Your task to perform on an android device: set the stopwatch Image 0: 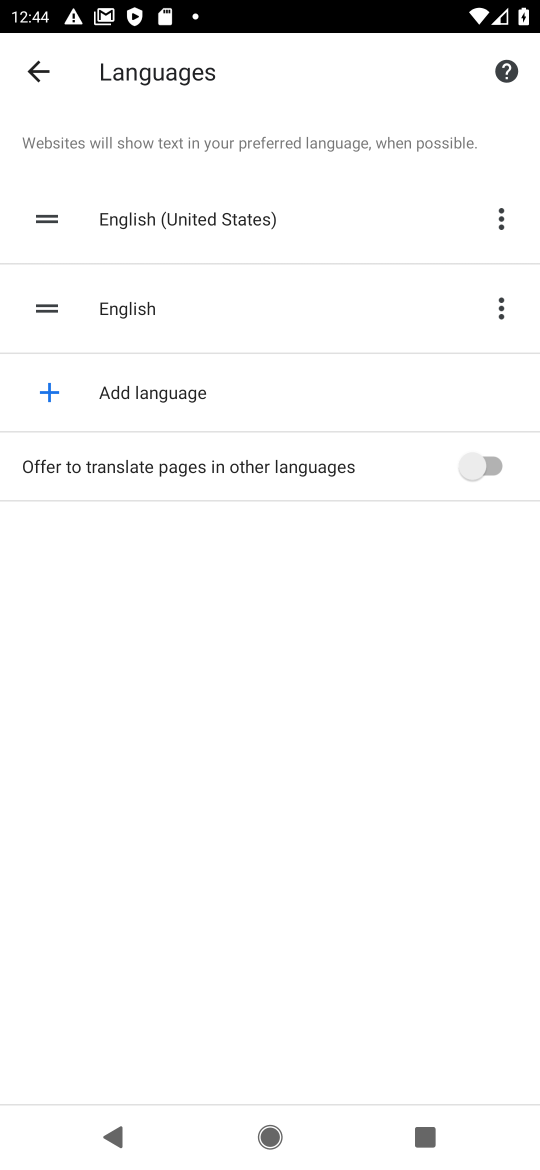
Step 0: press home button
Your task to perform on an android device: set the stopwatch Image 1: 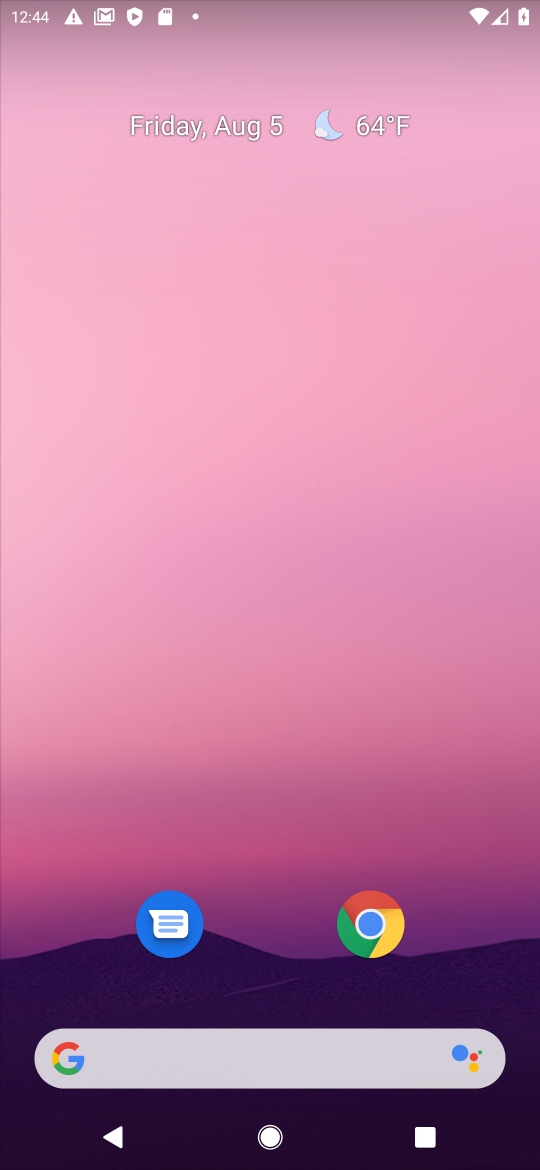
Step 1: drag from (264, 888) to (57, 9)
Your task to perform on an android device: set the stopwatch Image 2: 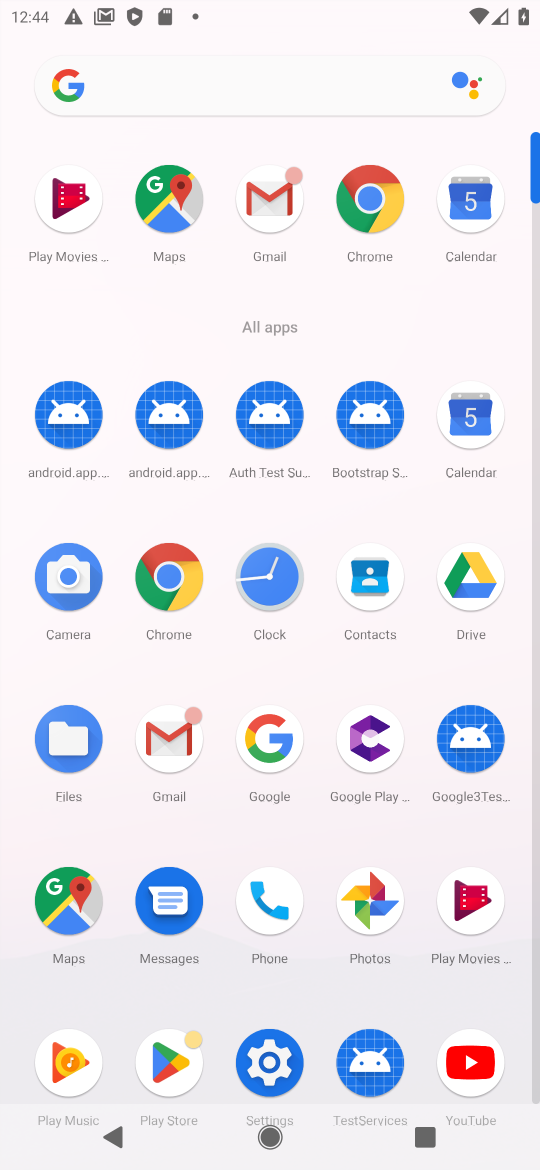
Step 2: click (267, 596)
Your task to perform on an android device: set the stopwatch Image 3: 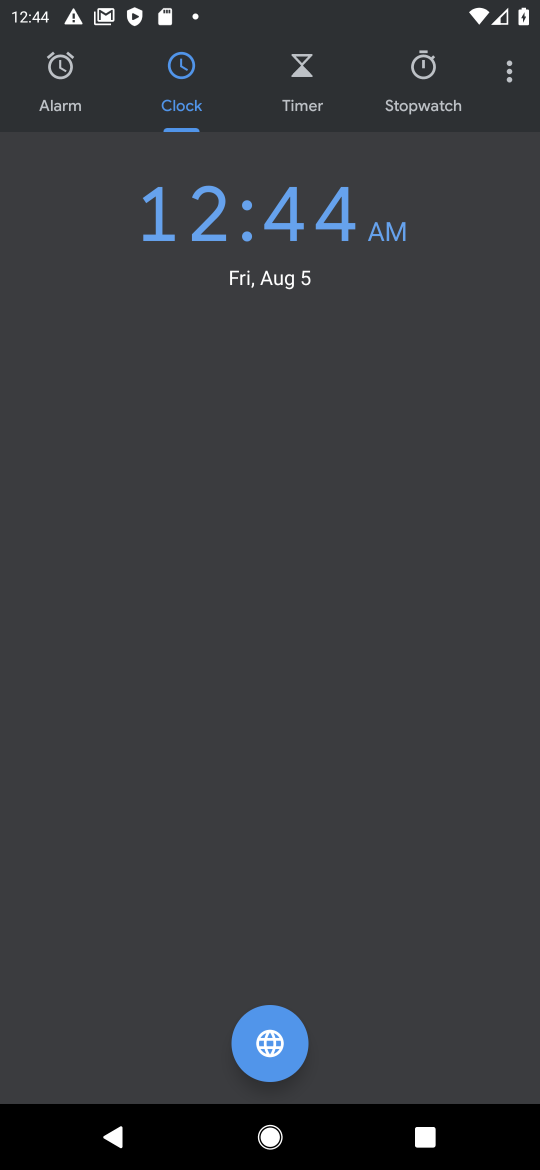
Step 3: click (425, 76)
Your task to perform on an android device: set the stopwatch Image 4: 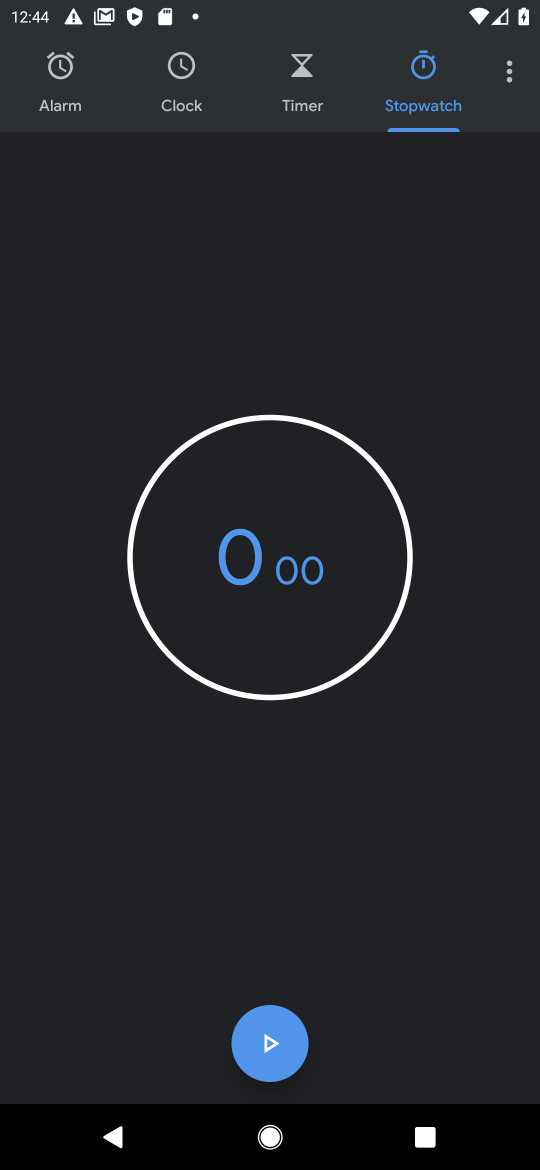
Step 4: click (269, 1050)
Your task to perform on an android device: set the stopwatch Image 5: 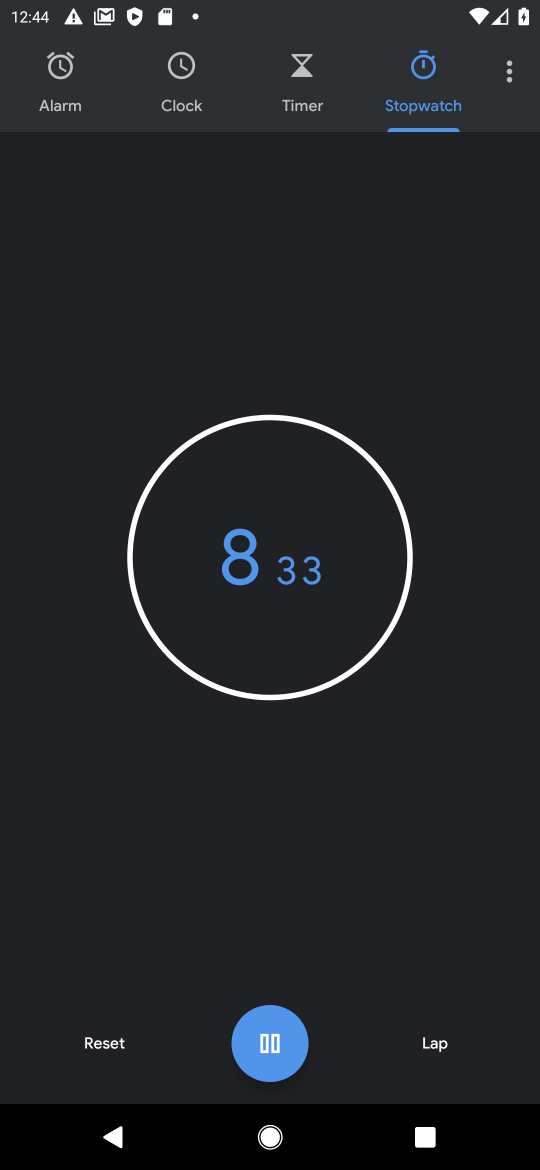
Step 5: task complete